Your task to perform on an android device: allow notifications from all sites in the chrome app Image 0: 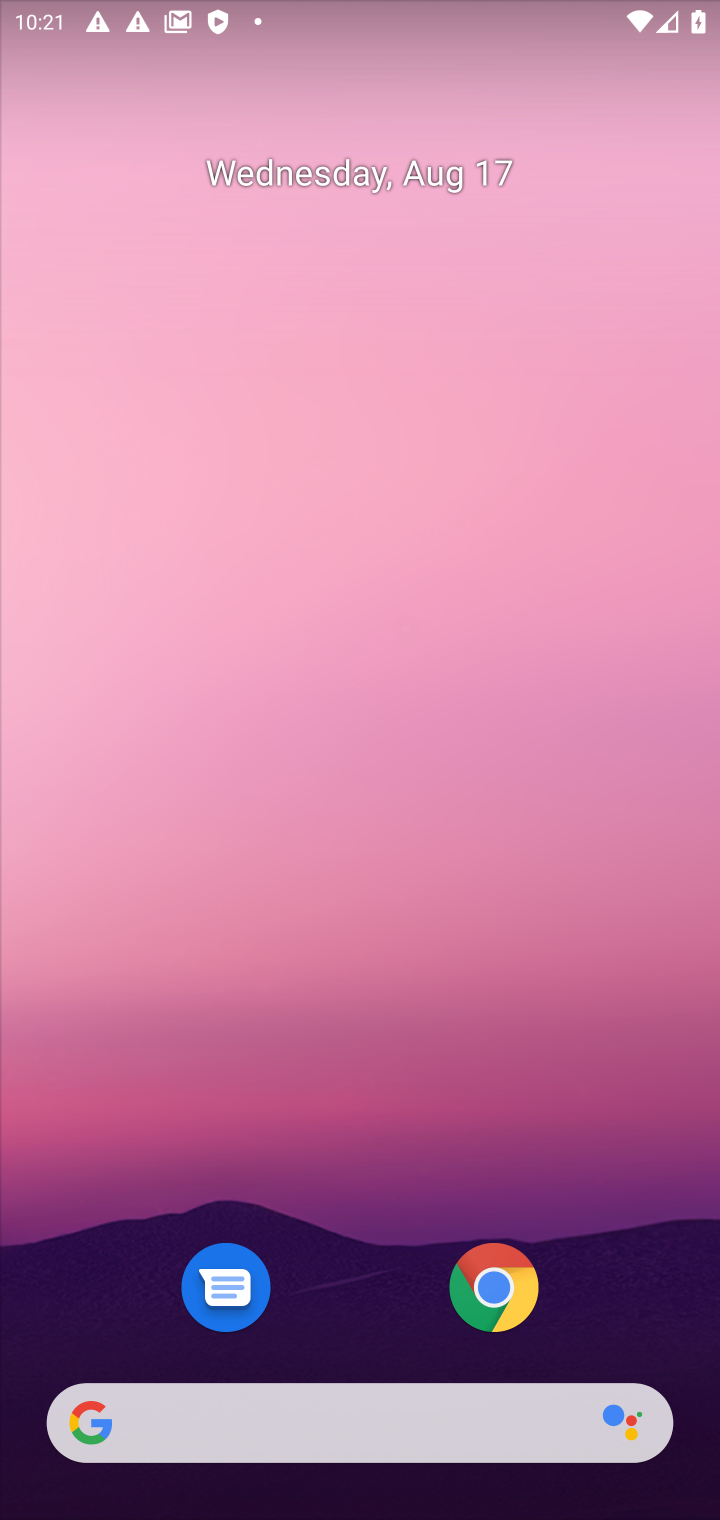
Step 0: press home button
Your task to perform on an android device: allow notifications from all sites in the chrome app Image 1: 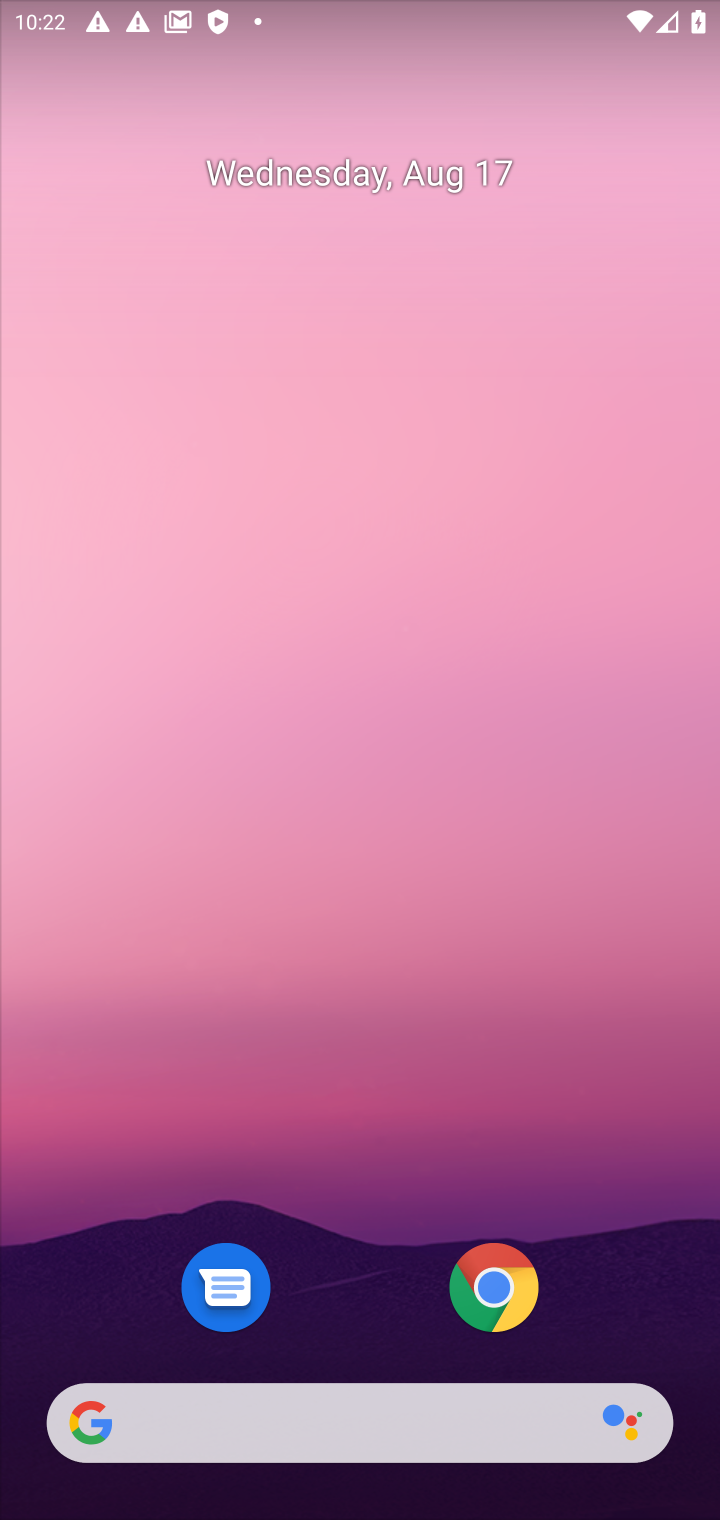
Step 1: click (495, 1297)
Your task to perform on an android device: allow notifications from all sites in the chrome app Image 2: 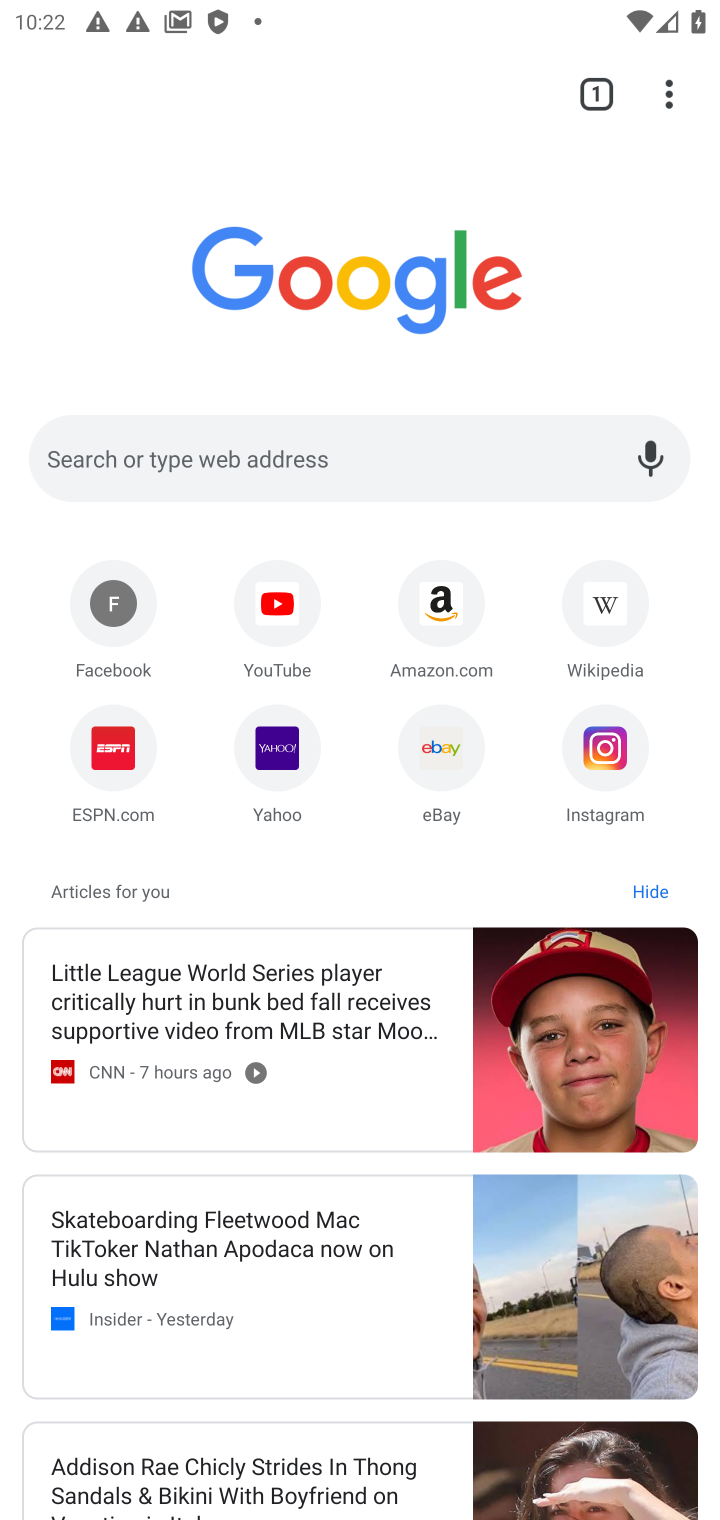
Step 2: drag from (659, 87) to (309, 891)
Your task to perform on an android device: allow notifications from all sites in the chrome app Image 3: 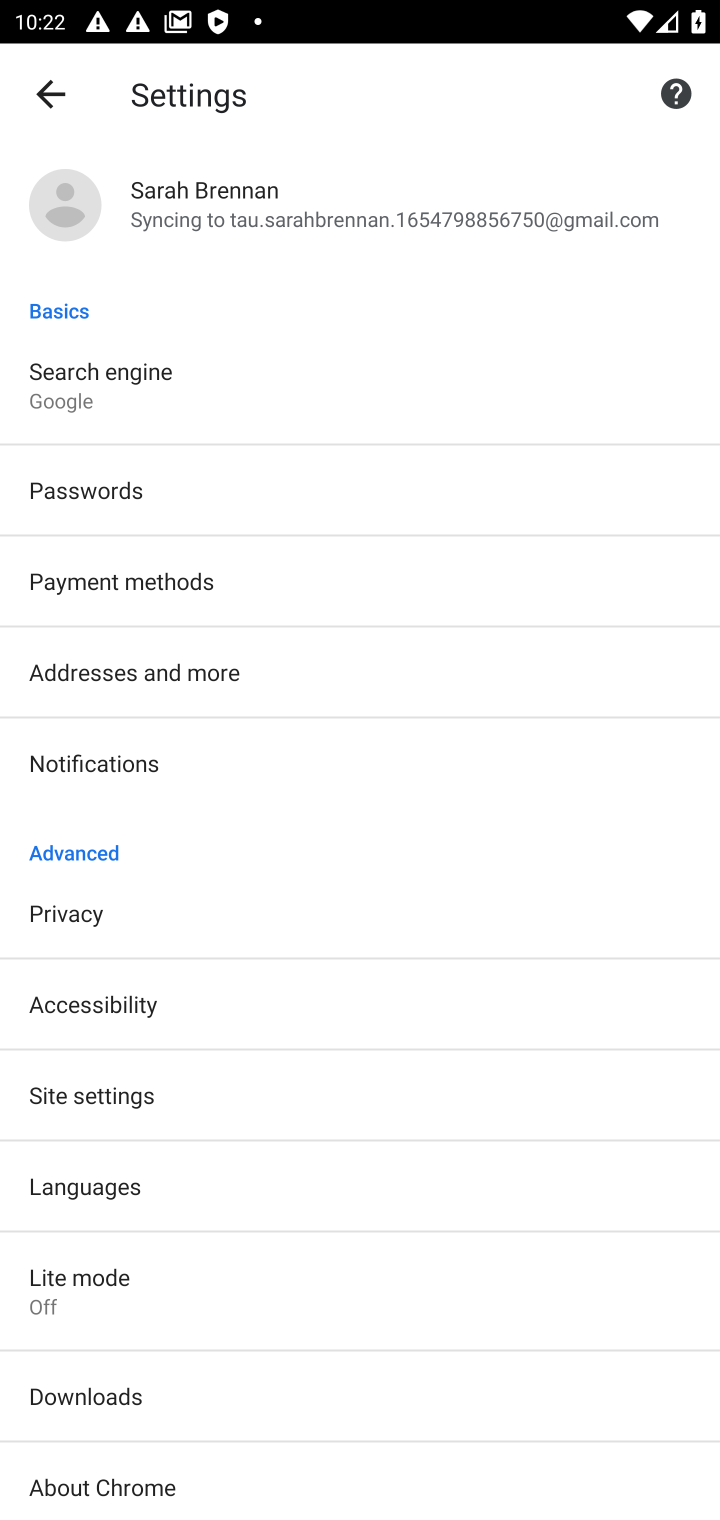
Step 3: drag from (245, 1417) to (216, 1082)
Your task to perform on an android device: allow notifications from all sites in the chrome app Image 4: 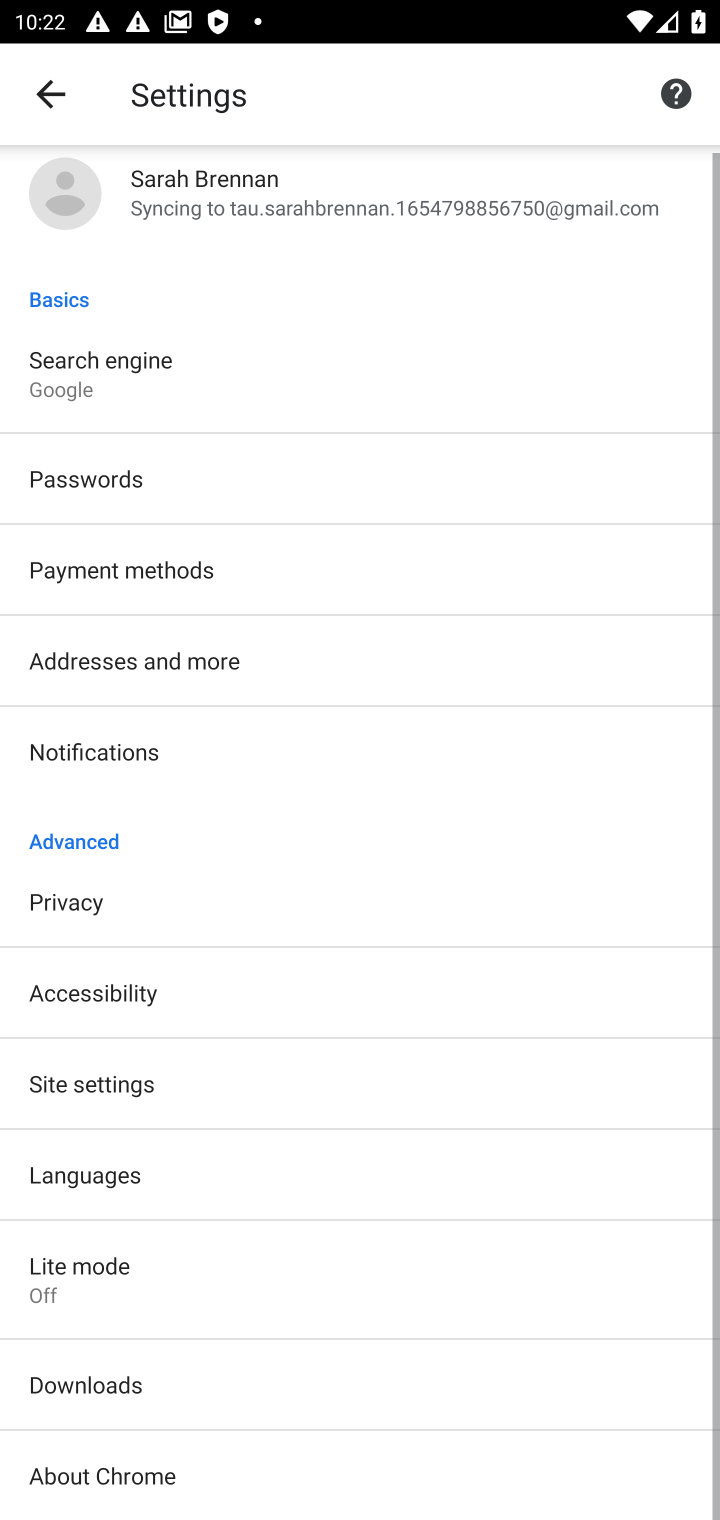
Step 4: click (84, 1072)
Your task to perform on an android device: allow notifications from all sites in the chrome app Image 5: 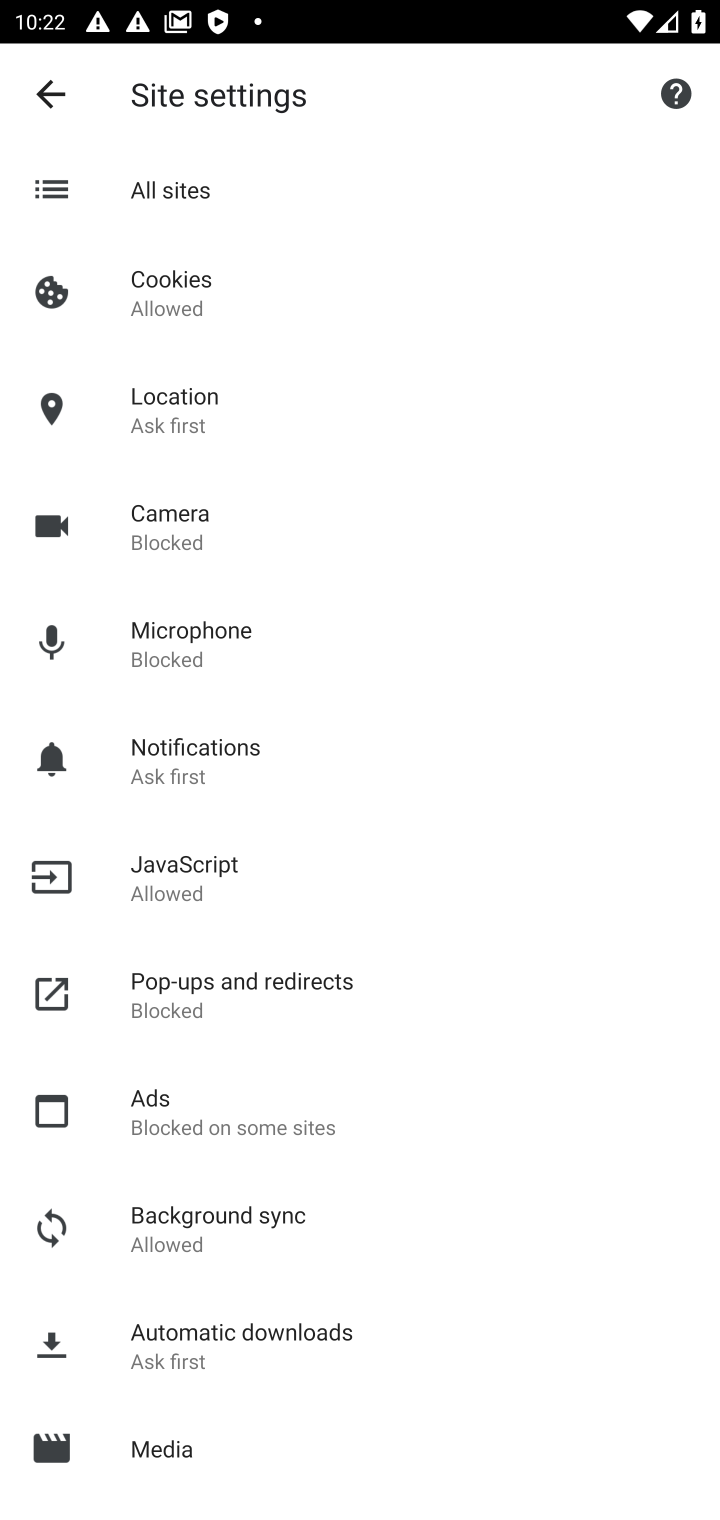
Step 5: task complete